Your task to perform on an android device: Go to accessibility settings Image 0: 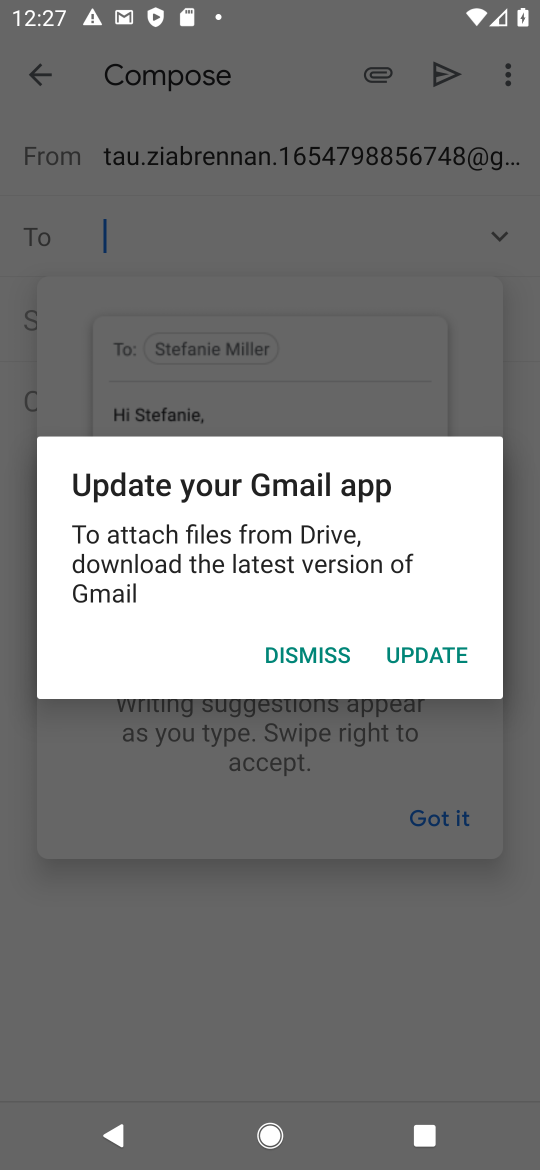
Step 0: drag from (249, 1032) to (350, 318)
Your task to perform on an android device: Go to accessibility settings Image 1: 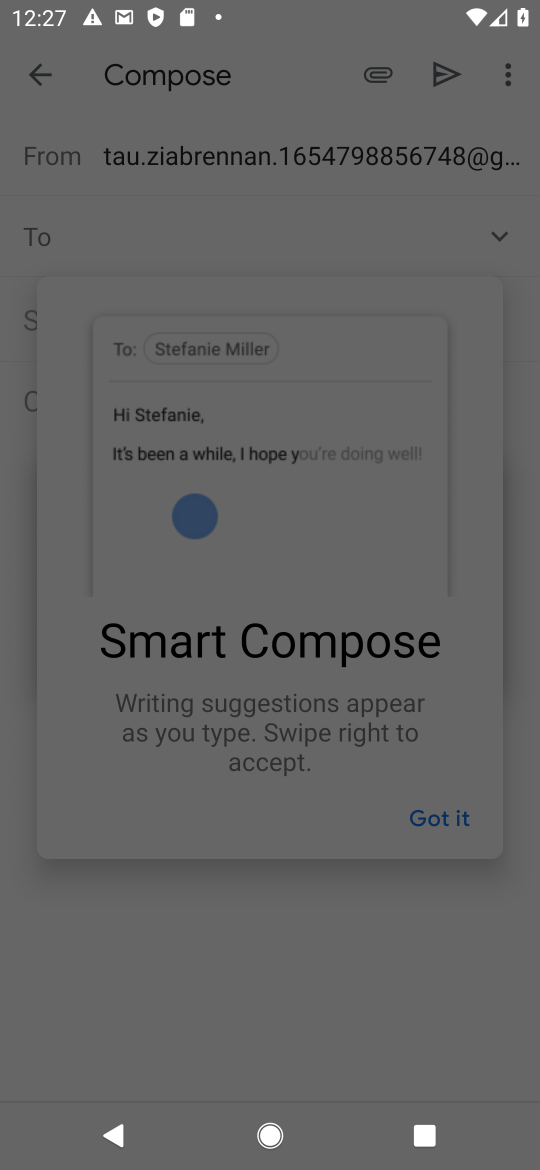
Step 1: drag from (323, 704) to (355, 337)
Your task to perform on an android device: Go to accessibility settings Image 2: 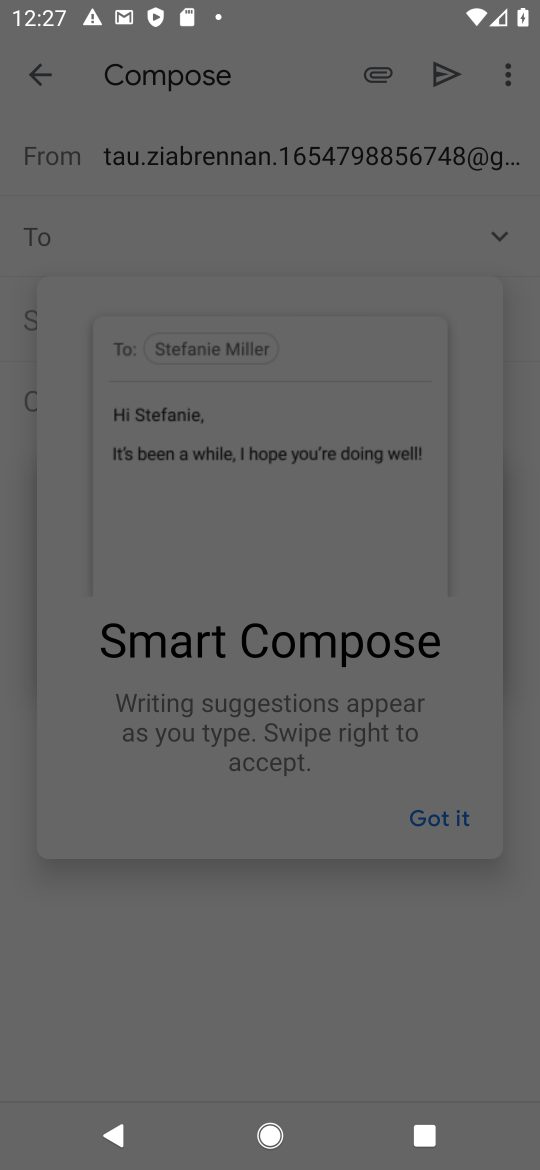
Step 2: press home button
Your task to perform on an android device: Go to accessibility settings Image 3: 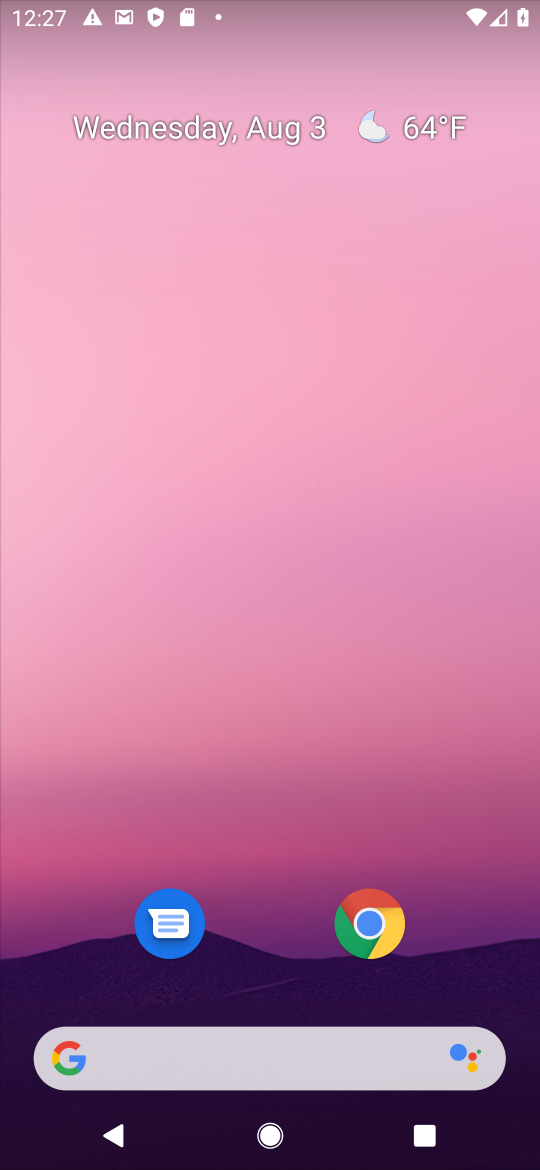
Step 3: drag from (276, 589) to (340, 170)
Your task to perform on an android device: Go to accessibility settings Image 4: 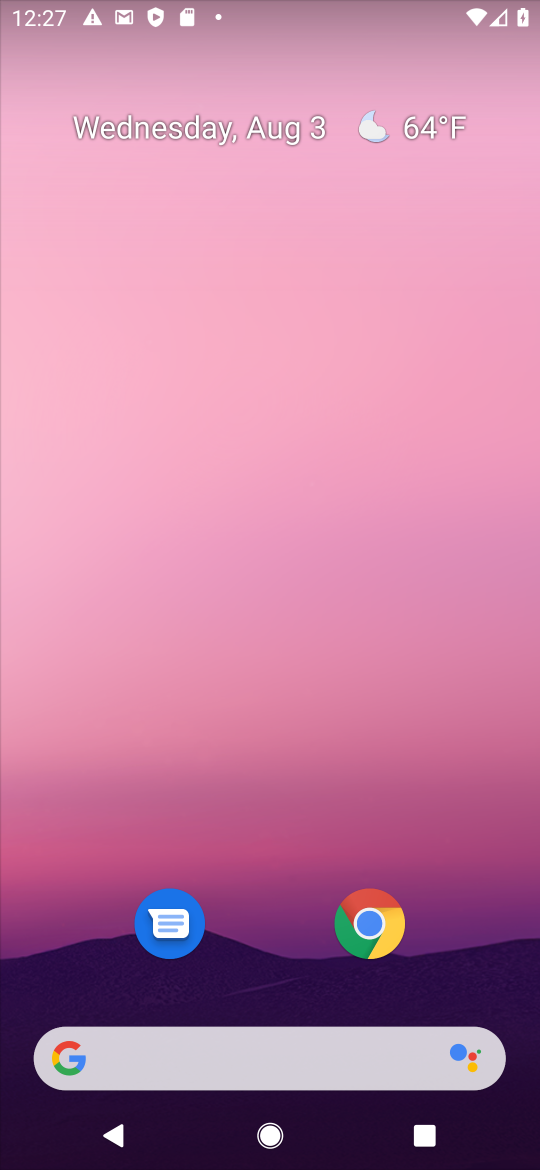
Step 4: drag from (269, 570) to (361, 141)
Your task to perform on an android device: Go to accessibility settings Image 5: 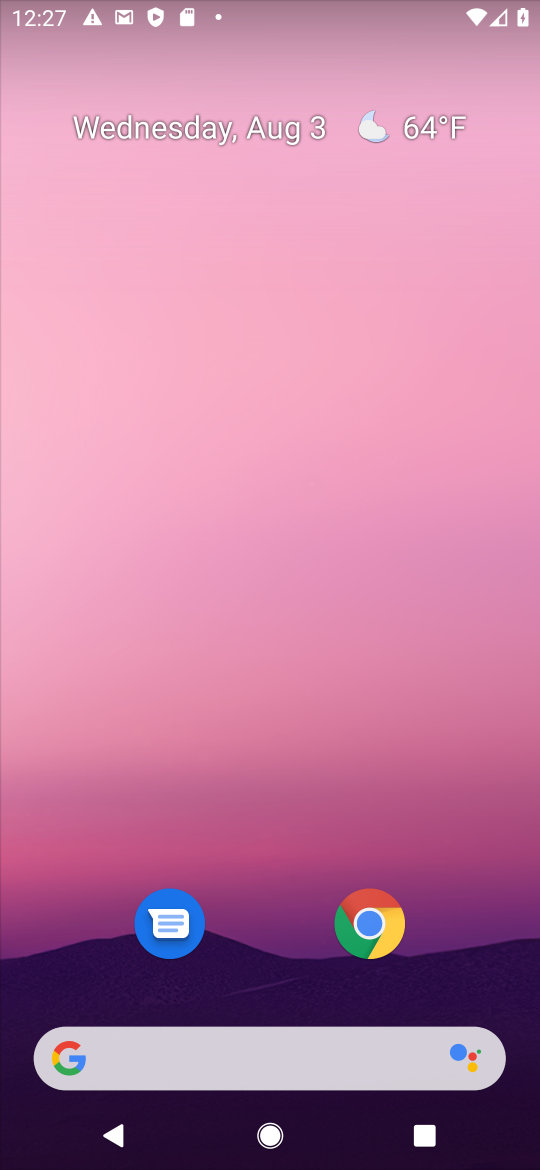
Step 5: drag from (272, 994) to (387, 54)
Your task to perform on an android device: Go to accessibility settings Image 6: 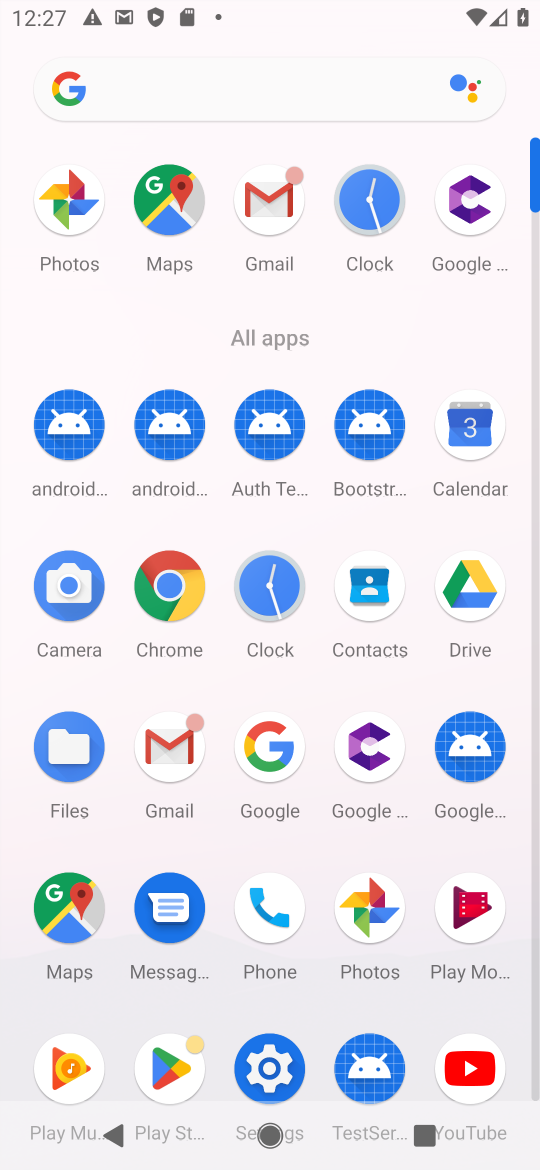
Step 6: click (251, 1053)
Your task to perform on an android device: Go to accessibility settings Image 7: 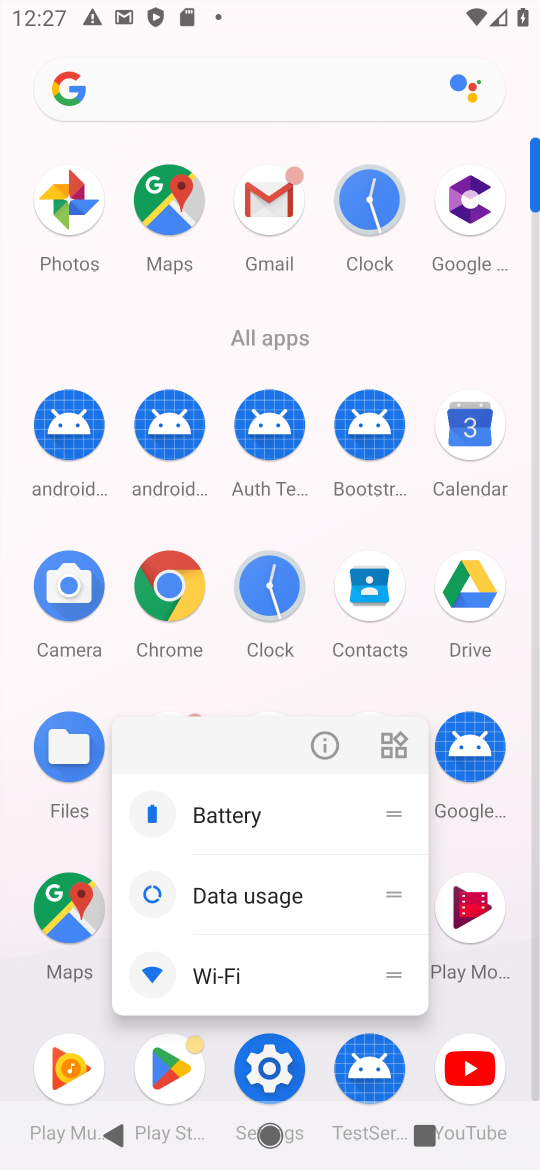
Step 7: click (331, 741)
Your task to perform on an android device: Go to accessibility settings Image 8: 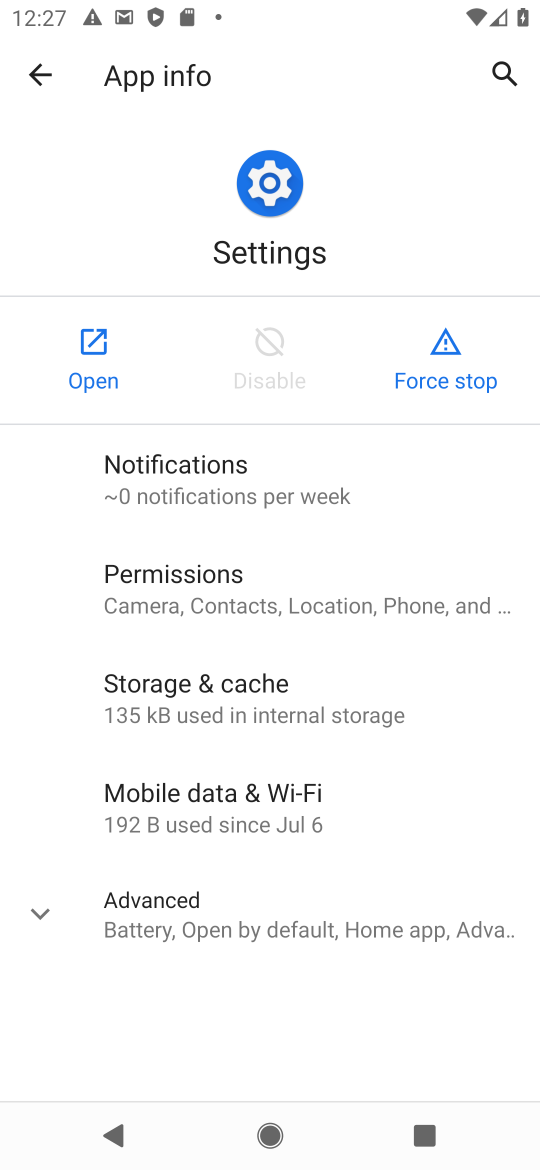
Step 8: click (79, 361)
Your task to perform on an android device: Go to accessibility settings Image 9: 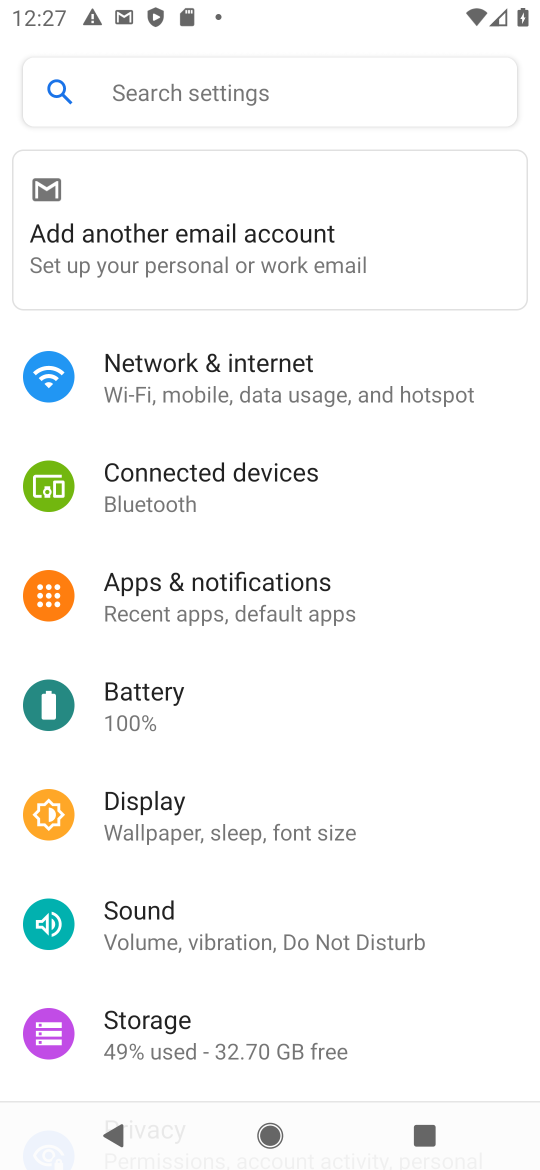
Step 9: drag from (239, 950) to (317, 394)
Your task to perform on an android device: Go to accessibility settings Image 10: 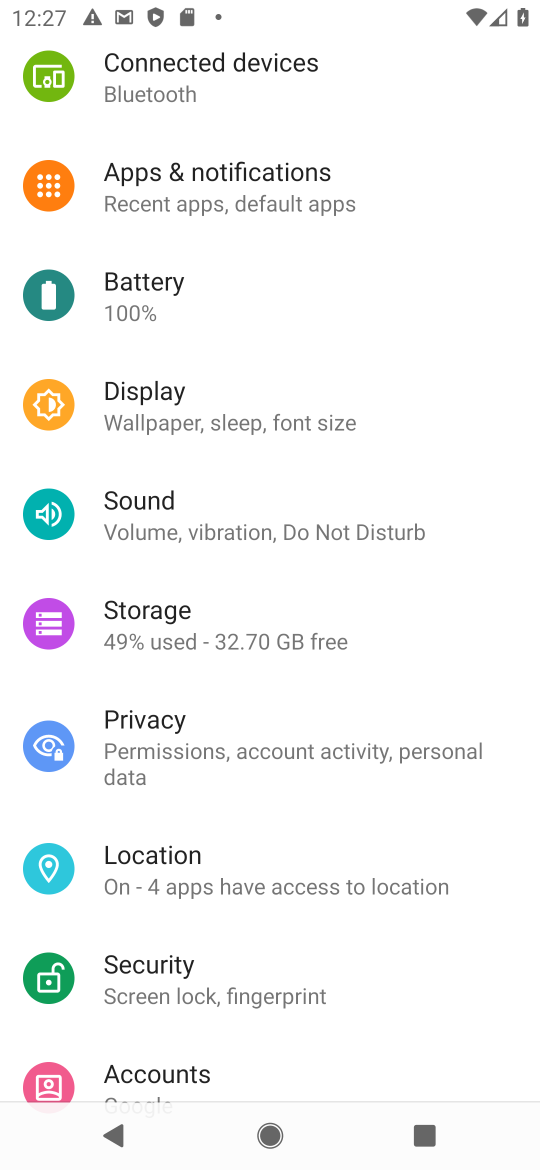
Step 10: drag from (226, 998) to (354, 425)
Your task to perform on an android device: Go to accessibility settings Image 11: 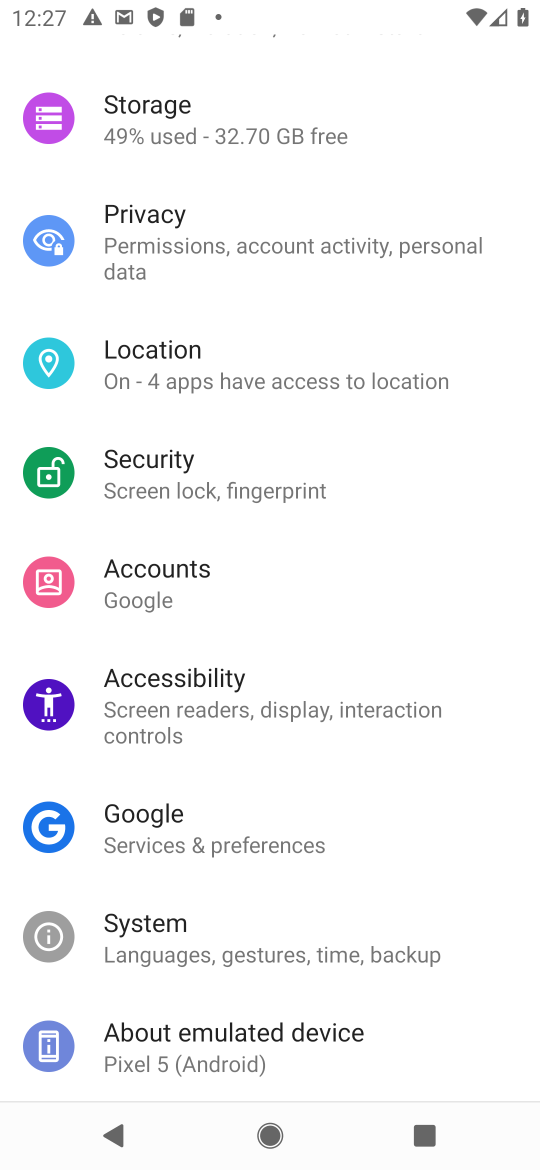
Step 11: click (222, 693)
Your task to perform on an android device: Go to accessibility settings Image 12: 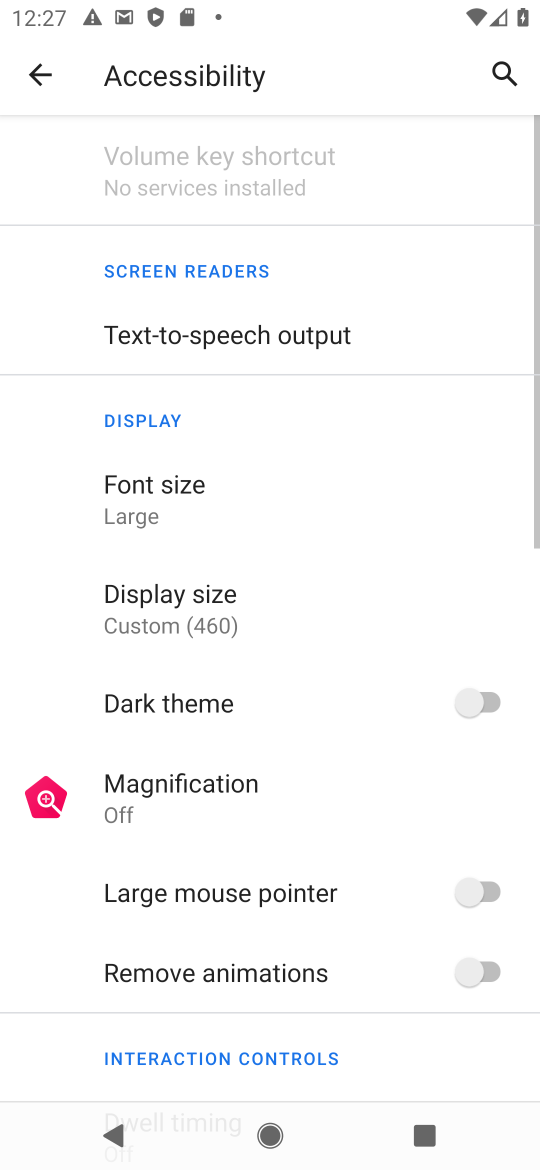
Step 12: task complete